Your task to perform on an android device: Go to privacy settings Image 0: 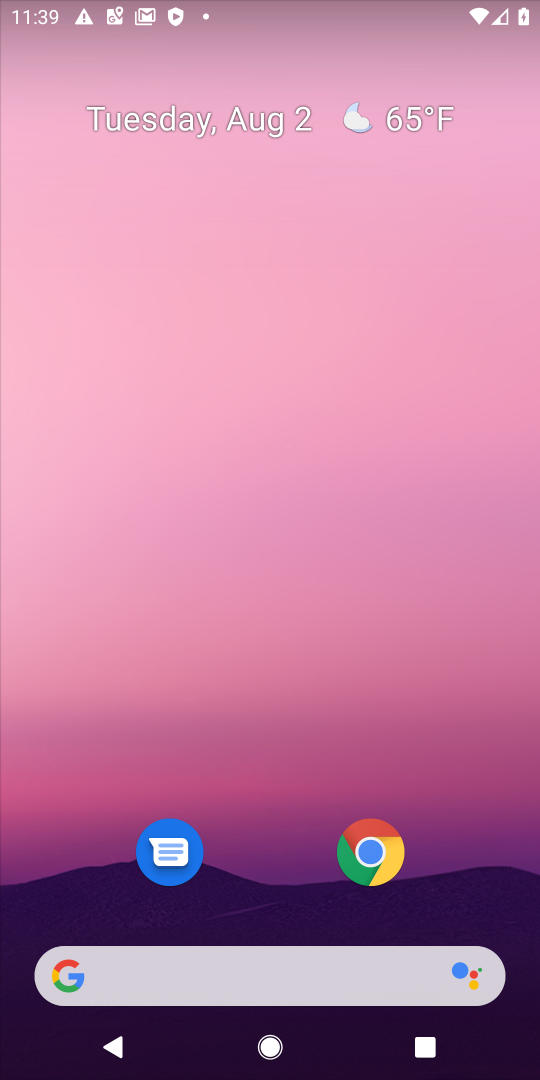
Step 0: drag from (493, 878) to (243, 168)
Your task to perform on an android device: Go to privacy settings Image 1: 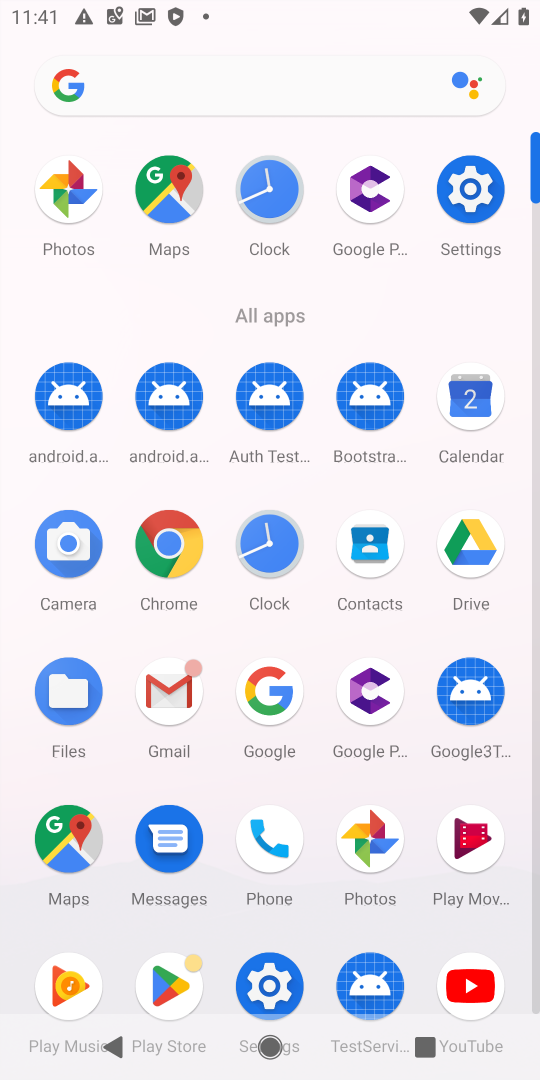
Step 1: click (262, 972)
Your task to perform on an android device: Go to privacy settings Image 2: 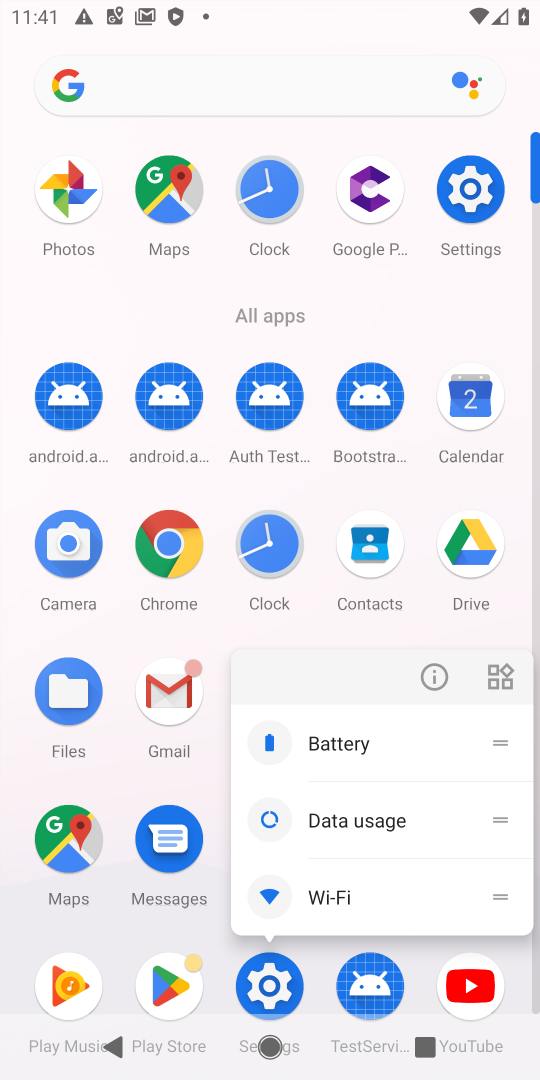
Step 2: click (262, 972)
Your task to perform on an android device: Go to privacy settings Image 3: 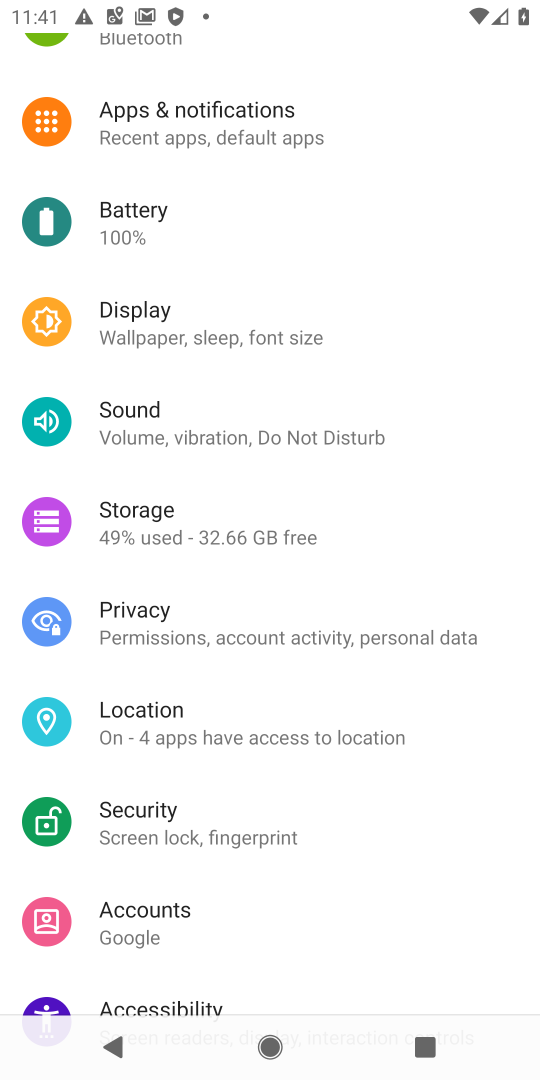
Step 3: click (147, 641)
Your task to perform on an android device: Go to privacy settings Image 4: 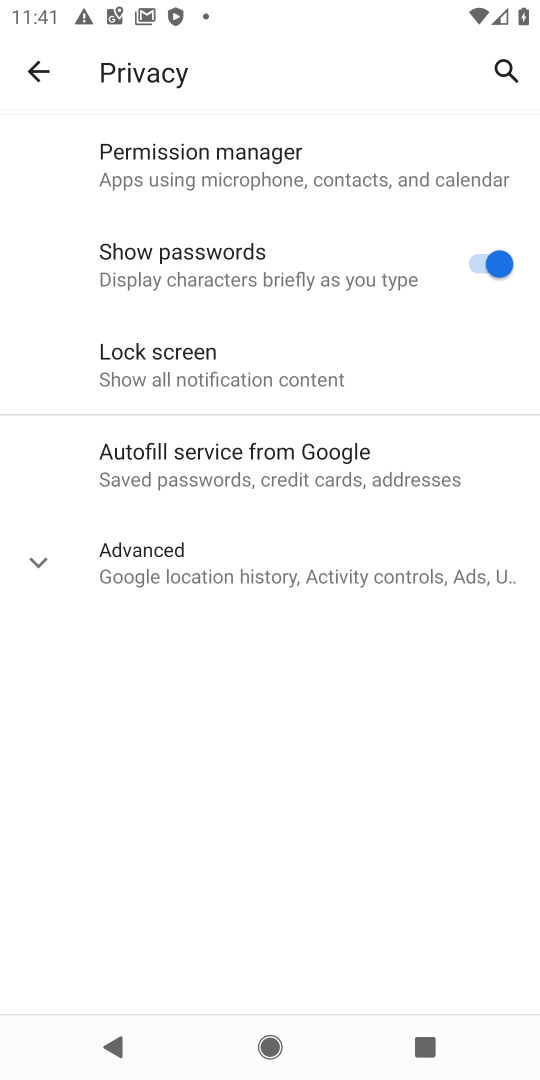
Step 4: task complete